Your task to perform on an android device: Open CNN.com Image 0: 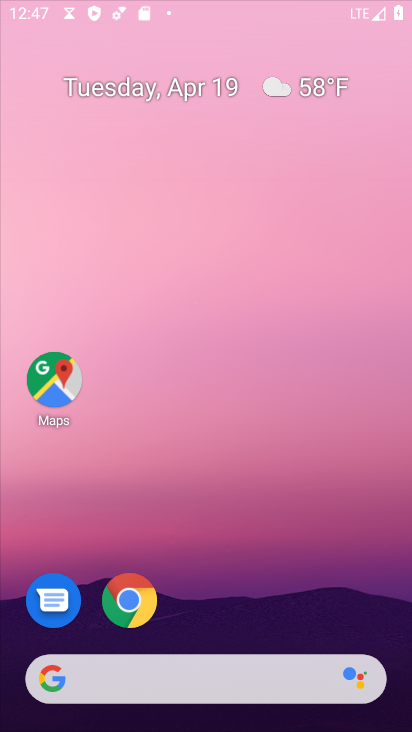
Step 0: click (142, 592)
Your task to perform on an android device: Open CNN.com Image 1: 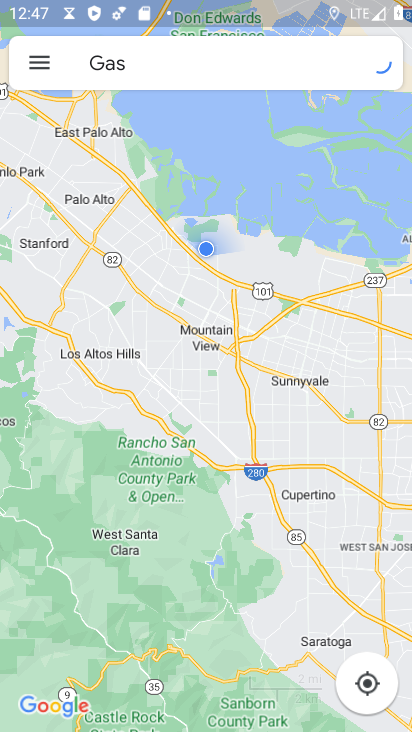
Step 1: press back button
Your task to perform on an android device: Open CNN.com Image 2: 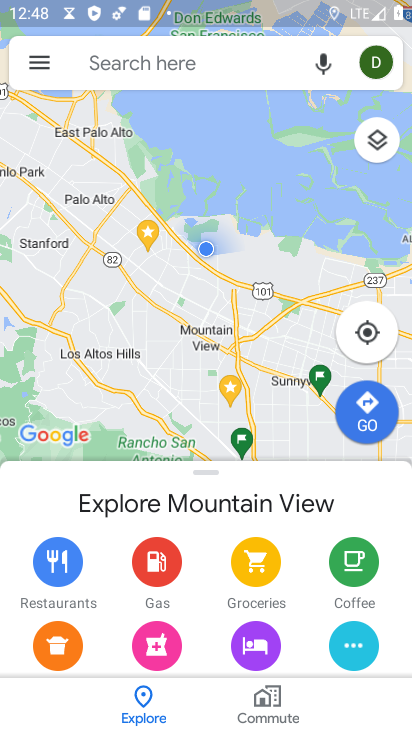
Step 2: press home button
Your task to perform on an android device: Open CNN.com Image 3: 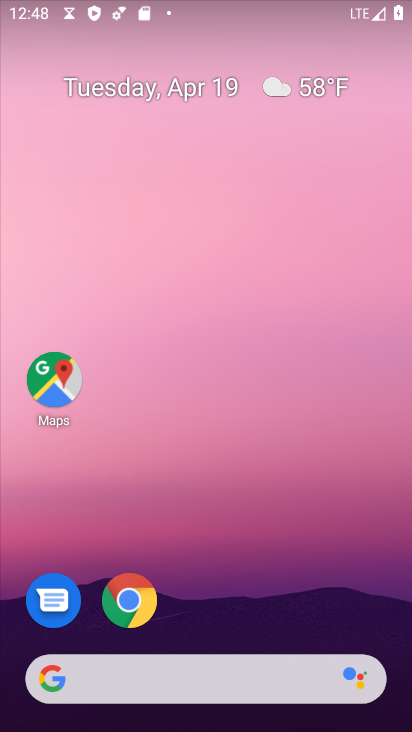
Step 3: click (140, 615)
Your task to perform on an android device: Open CNN.com Image 4: 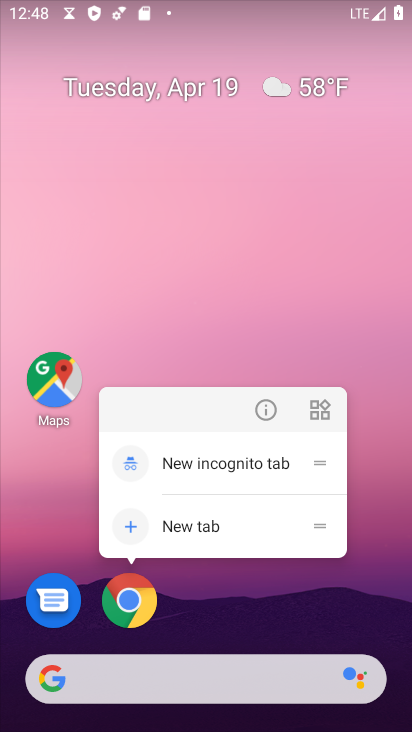
Step 4: click (141, 595)
Your task to perform on an android device: Open CNN.com Image 5: 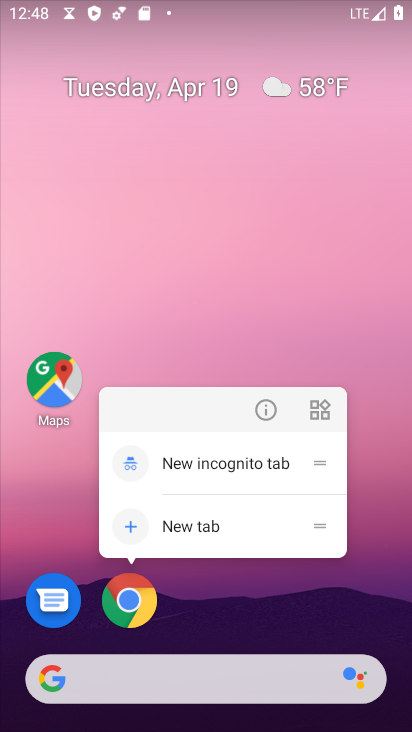
Step 5: click (136, 604)
Your task to perform on an android device: Open CNN.com Image 6: 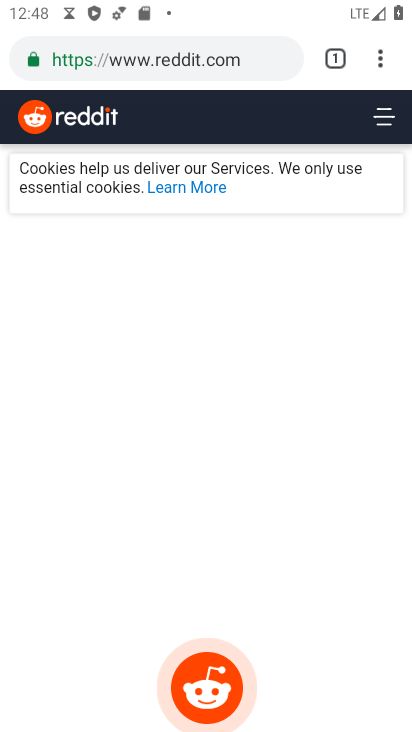
Step 6: click (209, 61)
Your task to perform on an android device: Open CNN.com Image 7: 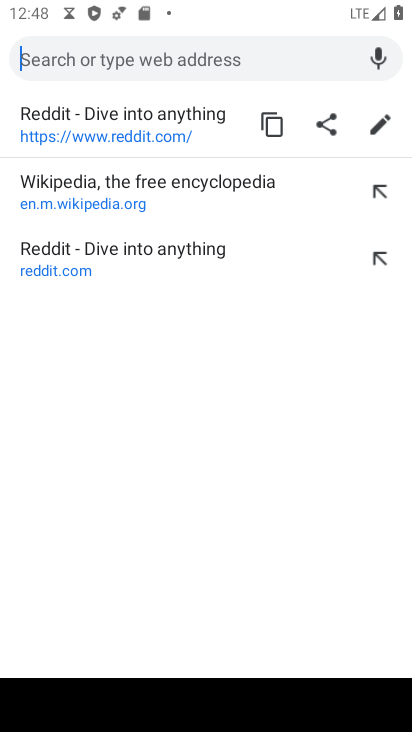
Step 7: type "cnn.com"
Your task to perform on an android device: Open CNN.com Image 8: 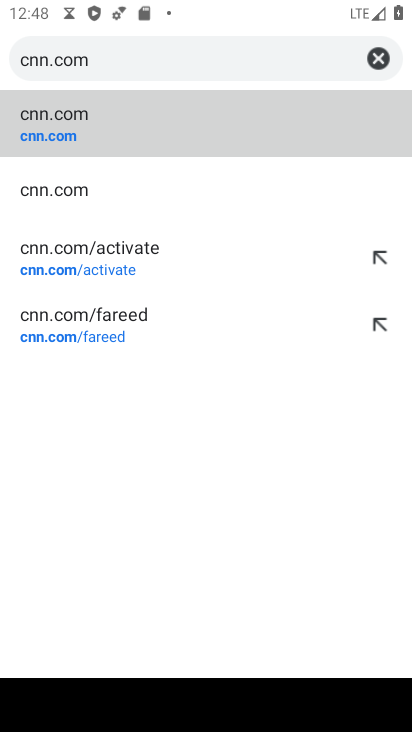
Step 8: click (60, 140)
Your task to perform on an android device: Open CNN.com Image 9: 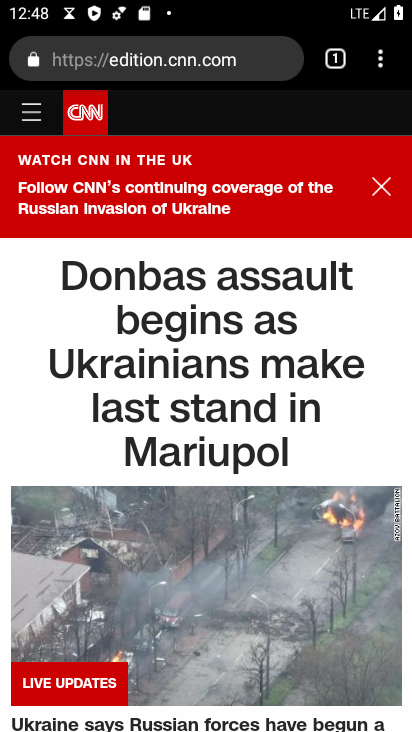
Step 9: task complete